Your task to perform on an android device: allow notifications from all sites in the chrome app Image 0: 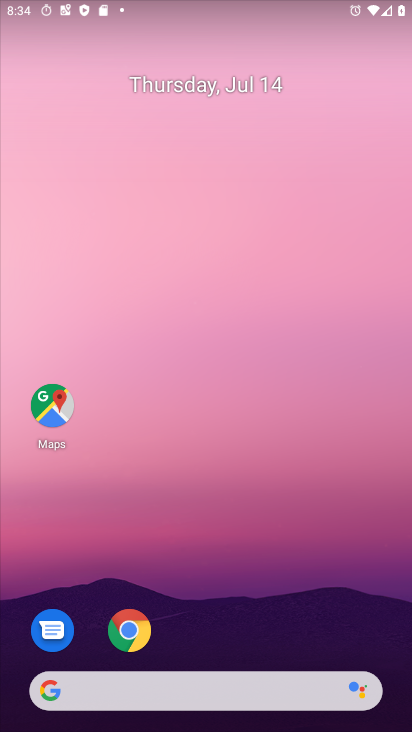
Step 0: click (142, 637)
Your task to perform on an android device: allow notifications from all sites in the chrome app Image 1: 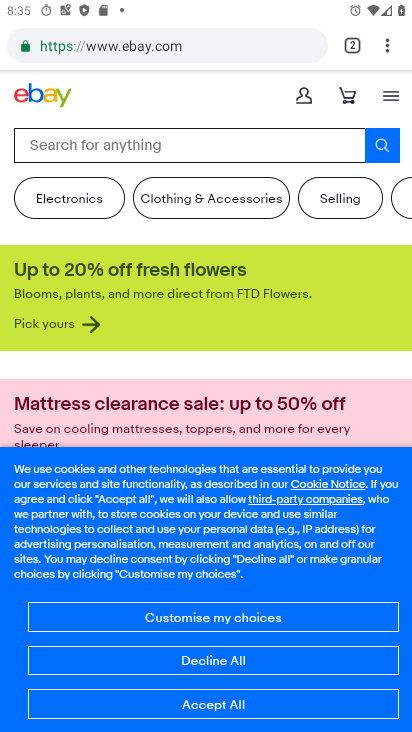
Step 1: click (387, 51)
Your task to perform on an android device: allow notifications from all sites in the chrome app Image 2: 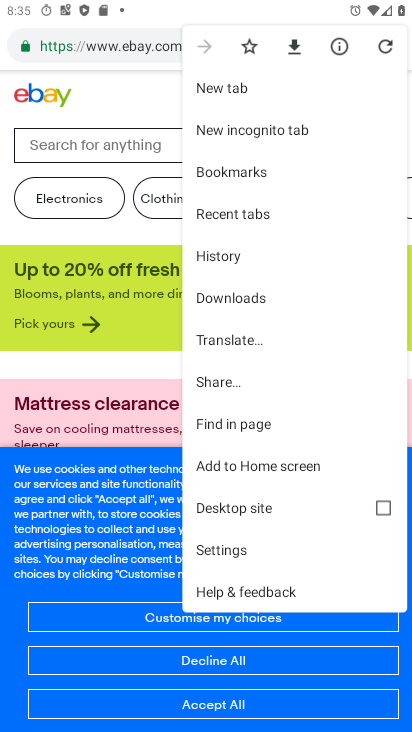
Step 2: click (224, 551)
Your task to perform on an android device: allow notifications from all sites in the chrome app Image 3: 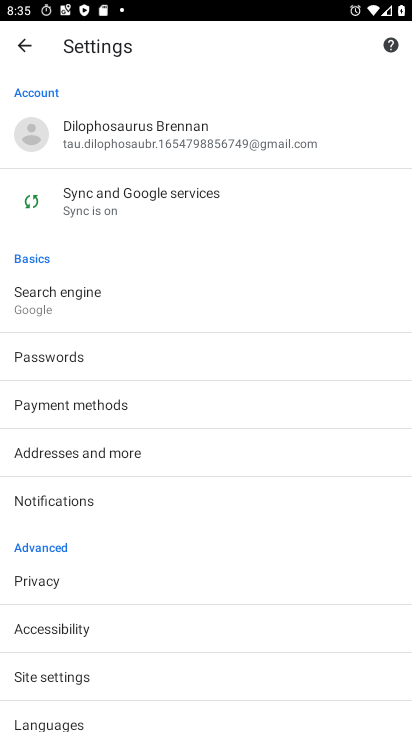
Step 3: click (62, 675)
Your task to perform on an android device: allow notifications from all sites in the chrome app Image 4: 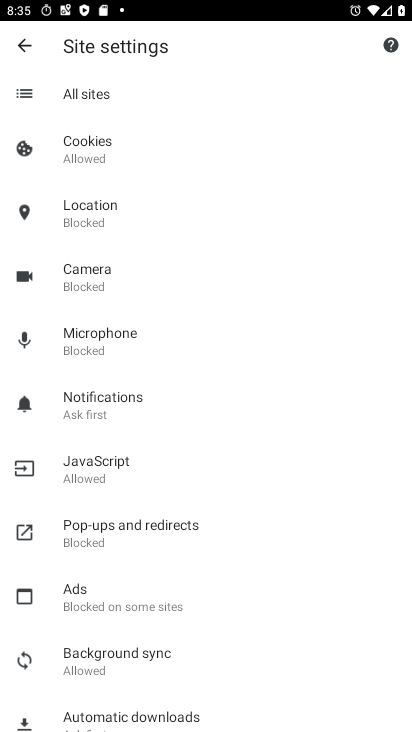
Step 4: click (92, 394)
Your task to perform on an android device: allow notifications from all sites in the chrome app Image 5: 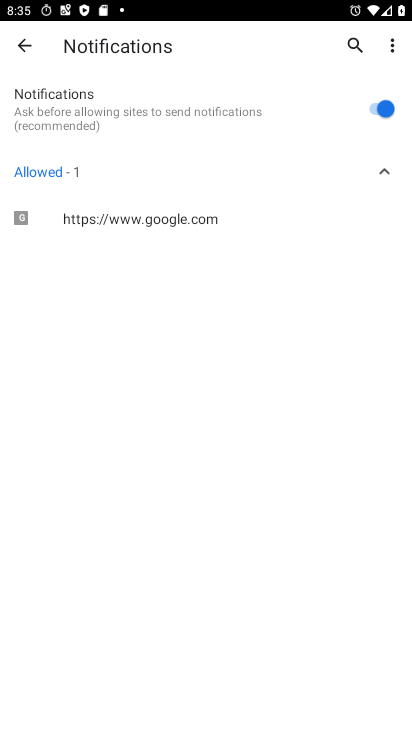
Step 5: task complete